Your task to perform on an android device: move an email to a new category in the gmail app Image 0: 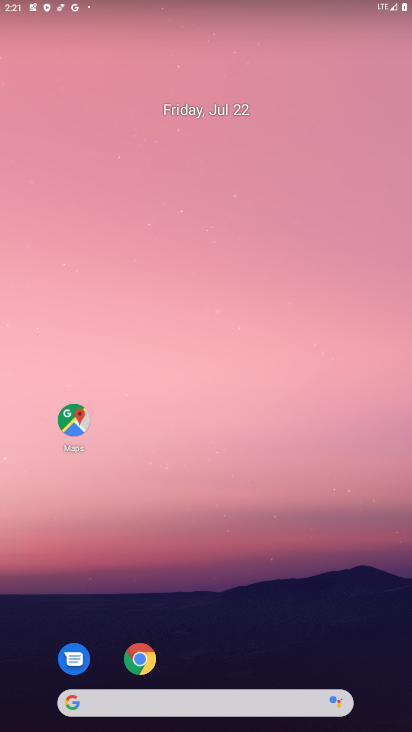
Step 0: drag from (196, 658) to (144, 158)
Your task to perform on an android device: move an email to a new category in the gmail app Image 1: 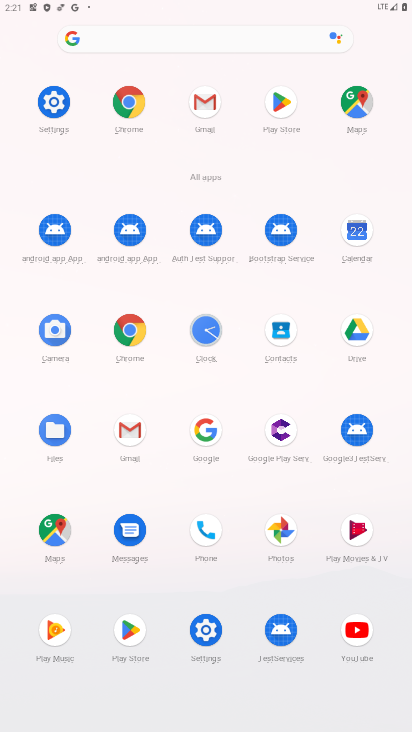
Step 1: click (208, 108)
Your task to perform on an android device: move an email to a new category in the gmail app Image 2: 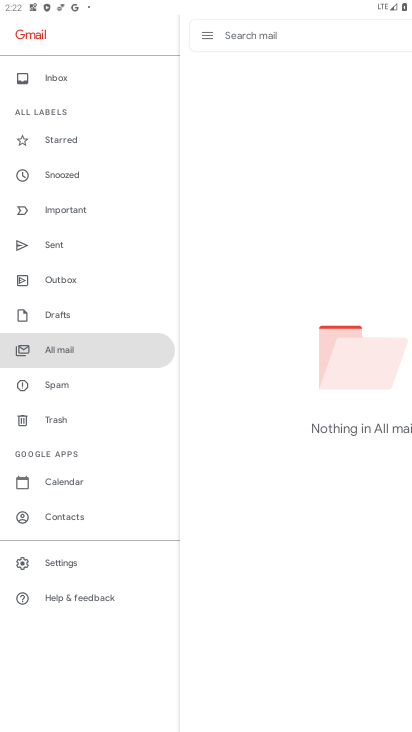
Step 2: task complete